Your task to perform on an android device: What's the weather today? Image 0: 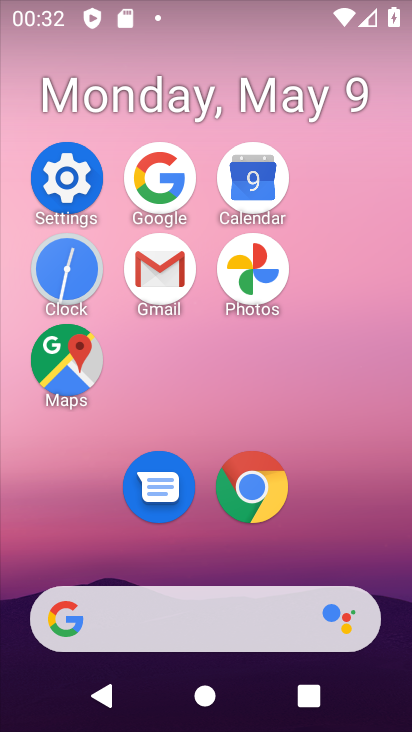
Step 0: click (176, 181)
Your task to perform on an android device: What's the weather today? Image 1: 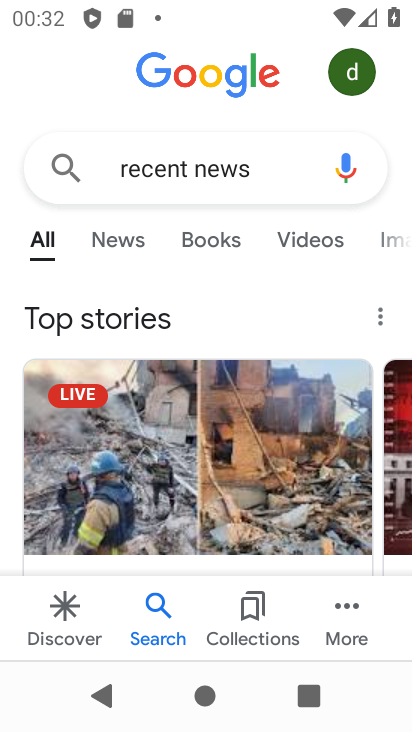
Step 1: click (262, 175)
Your task to perform on an android device: What's the weather today? Image 2: 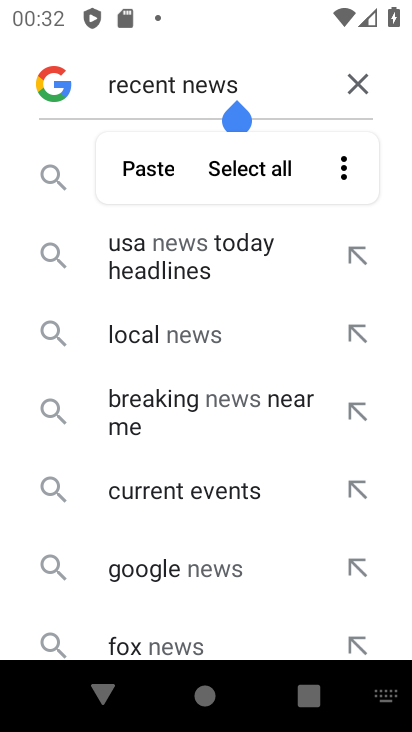
Step 2: click (352, 76)
Your task to perform on an android device: What's the weather today? Image 3: 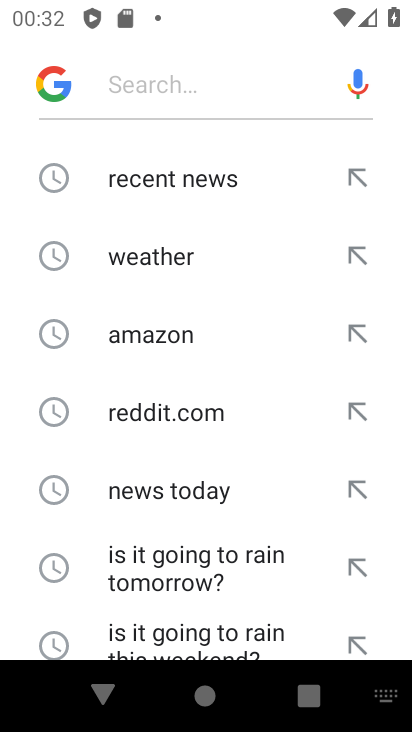
Step 3: click (186, 251)
Your task to perform on an android device: What's the weather today? Image 4: 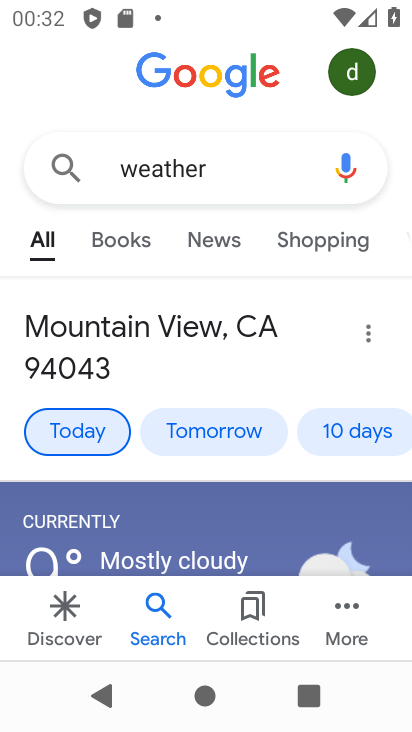
Step 4: task complete